Your task to perform on an android device: Go to eBay Image 0: 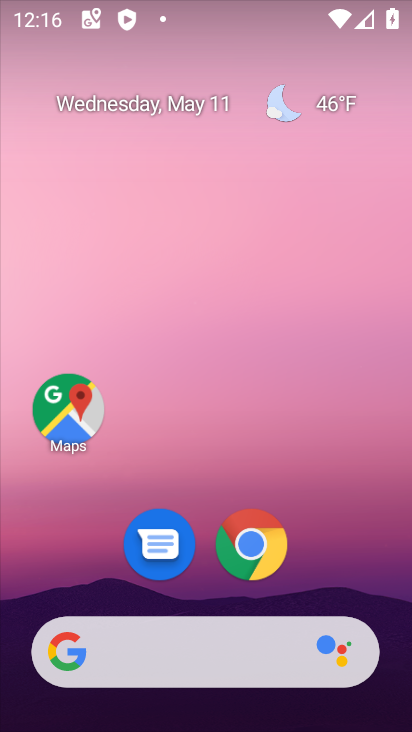
Step 0: click (251, 542)
Your task to perform on an android device: Go to eBay Image 1: 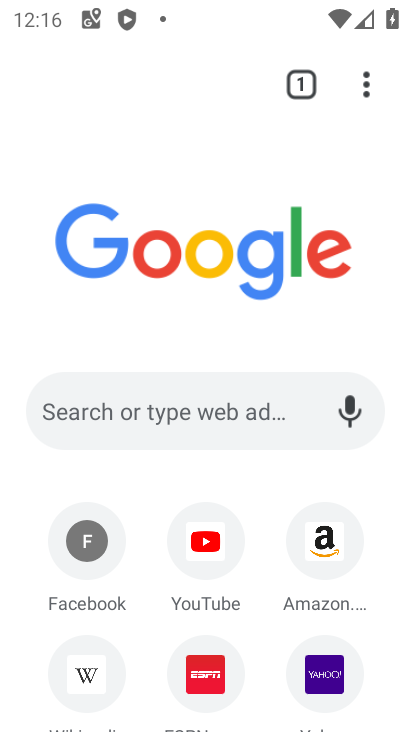
Step 1: click (140, 415)
Your task to perform on an android device: Go to eBay Image 2: 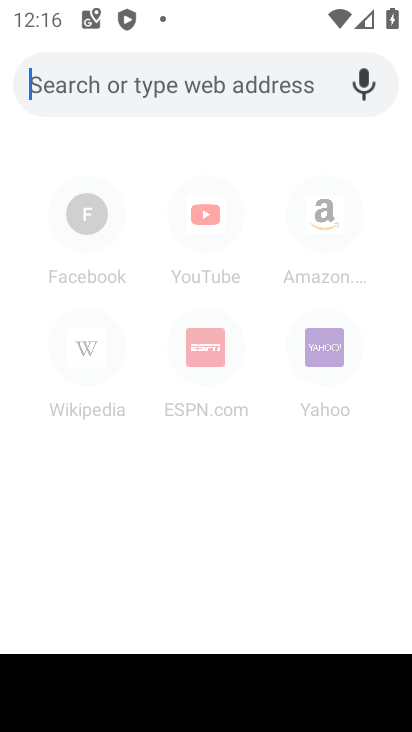
Step 2: type "ebay"
Your task to perform on an android device: Go to eBay Image 3: 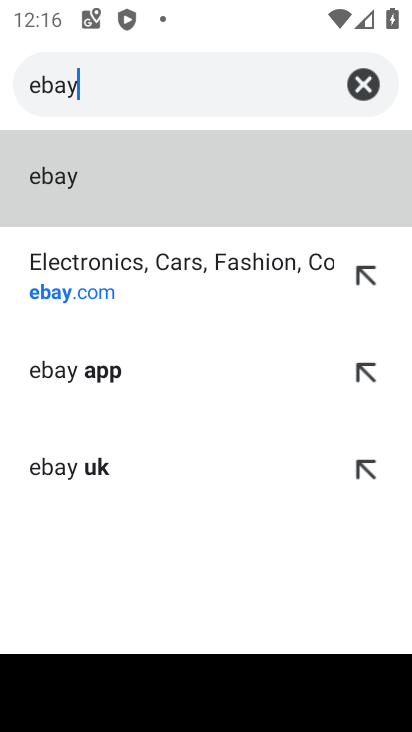
Step 3: click (71, 190)
Your task to perform on an android device: Go to eBay Image 4: 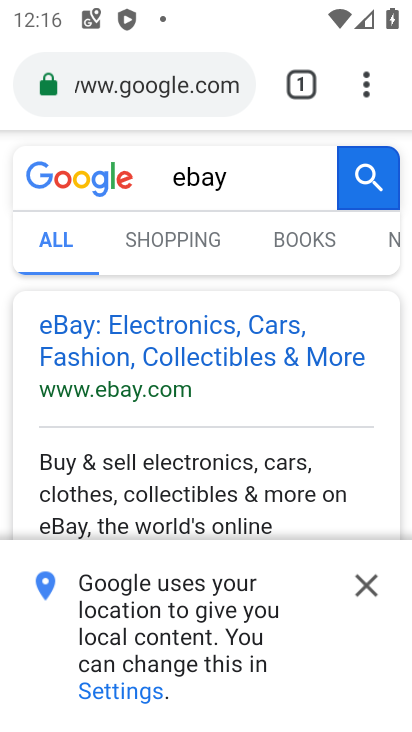
Step 4: click (366, 580)
Your task to perform on an android device: Go to eBay Image 5: 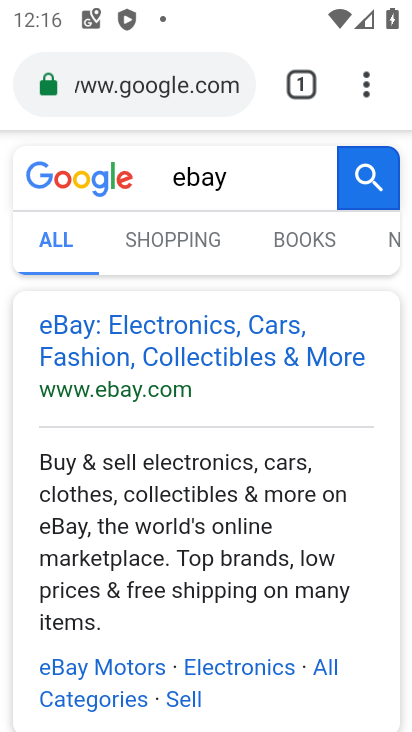
Step 5: click (99, 341)
Your task to perform on an android device: Go to eBay Image 6: 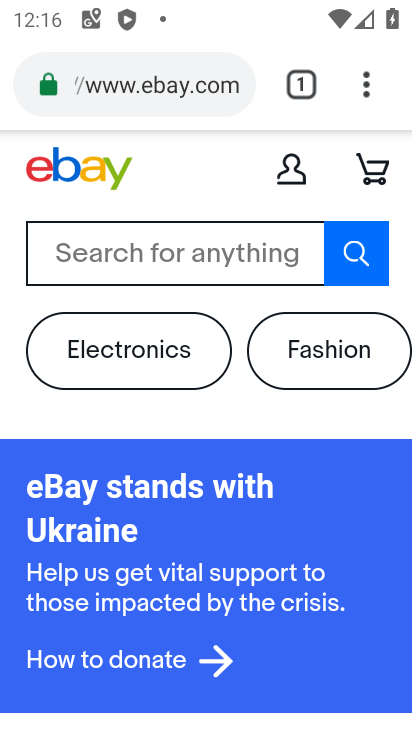
Step 6: task complete